Your task to perform on an android device: turn off location Image 0: 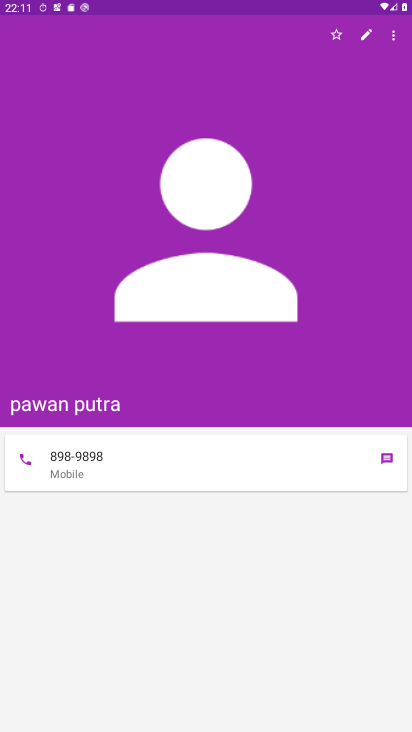
Step 0: press home button
Your task to perform on an android device: turn off location Image 1: 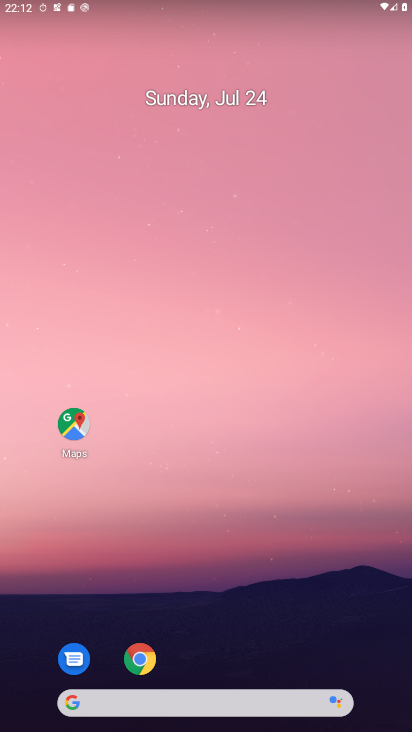
Step 1: drag from (216, 720) to (207, 189)
Your task to perform on an android device: turn off location Image 2: 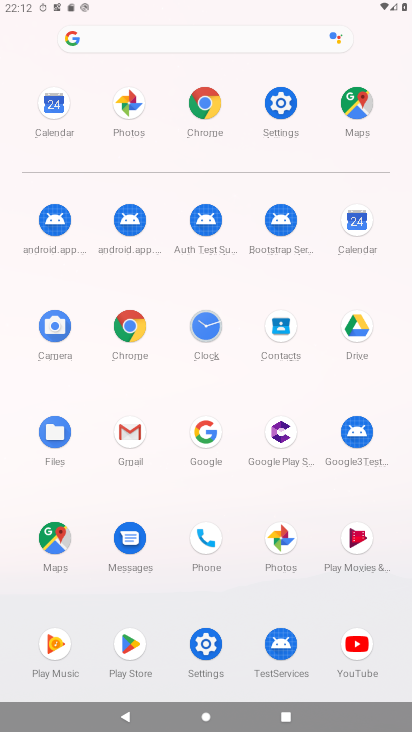
Step 2: click (285, 100)
Your task to perform on an android device: turn off location Image 3: 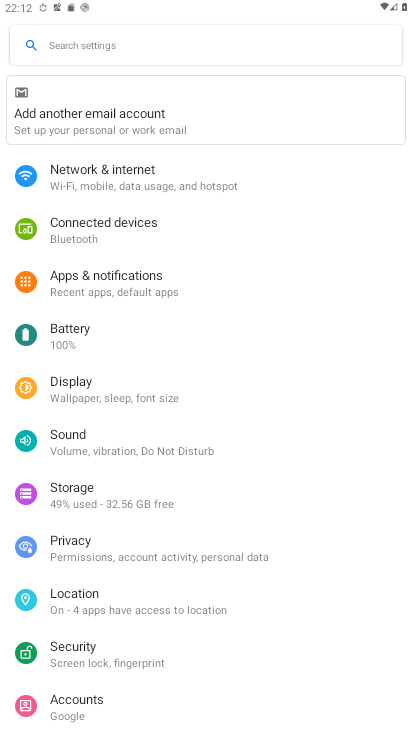
Step 3: click (71, 593)
Your task to perform on an android device: turn off location Image 4: 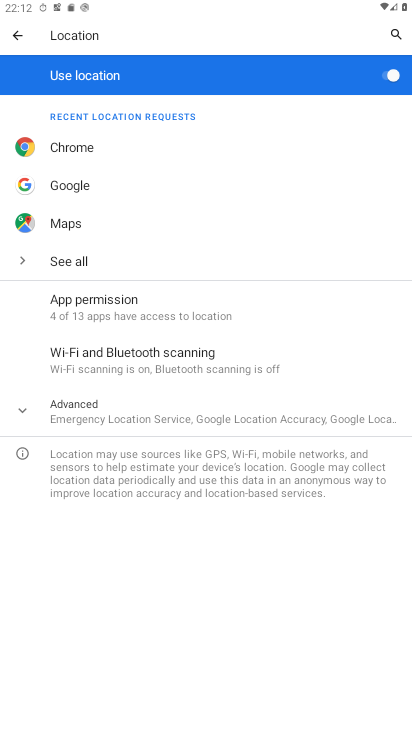
Step 4: click (387, 78)
Your task to perform on an android device: turn off location Image 5: 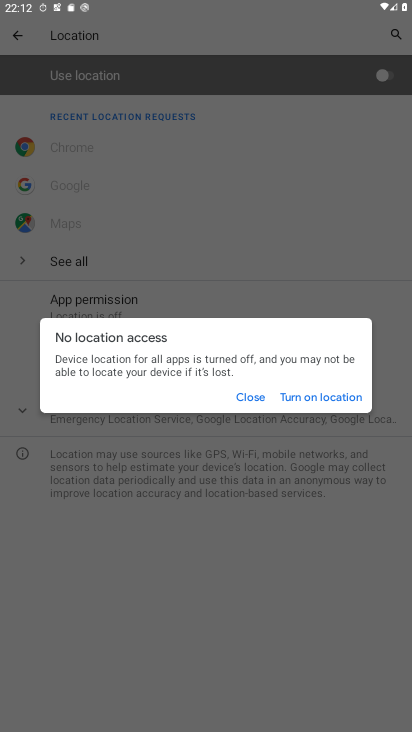
Step 5: click (261, 390)
Your task to perform on an android device: turn off location Image 6: 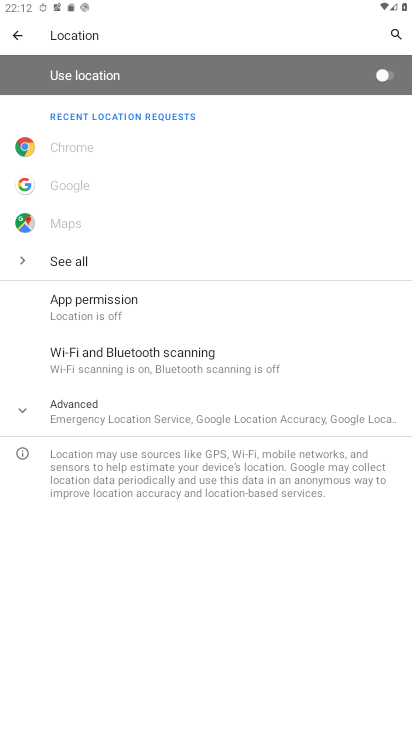
Step 6: task complete